Your task to perform on an android device: What's on my calendar tomorrow? Image 0: 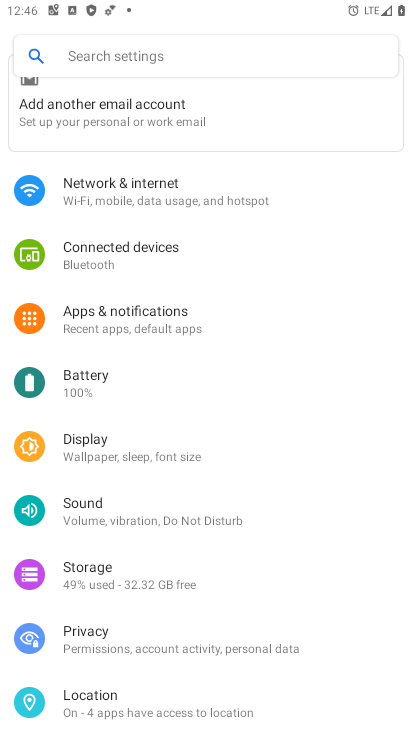
Step 0: press home button
Your task to perform on an android device: What's on my calendar tomorrow? Image 1: 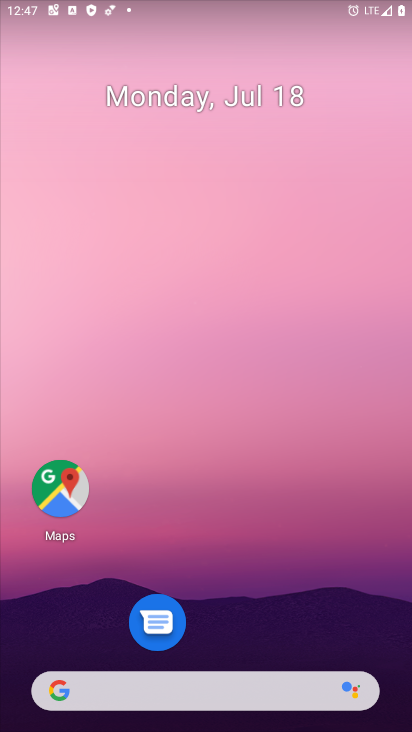
Step 1: drag from (197, 482) to (244, 5)
Your task to perform on an android device: What's on my calendar tomorrow? Image 2: 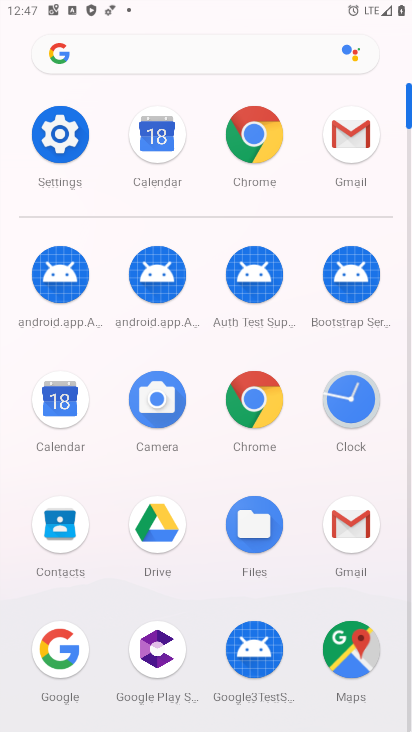
Step 2: click (50, 516)
Your task to perform on an android device: What's on my calendar tomorrow? Image 3: 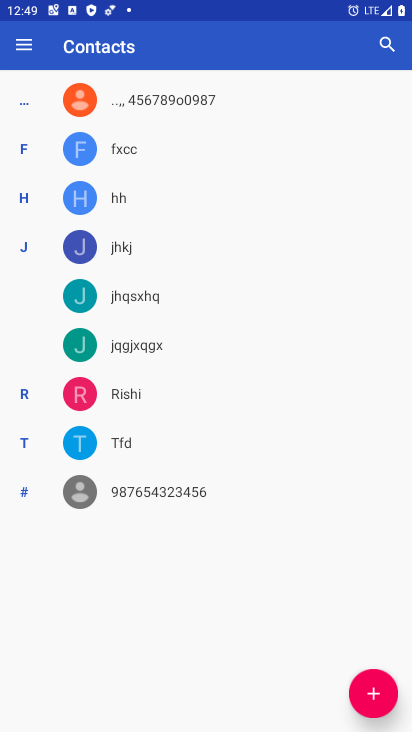
Step 3: press home button
Your task to perform on an android device: What's on my calendar tomorrow? Image 4: 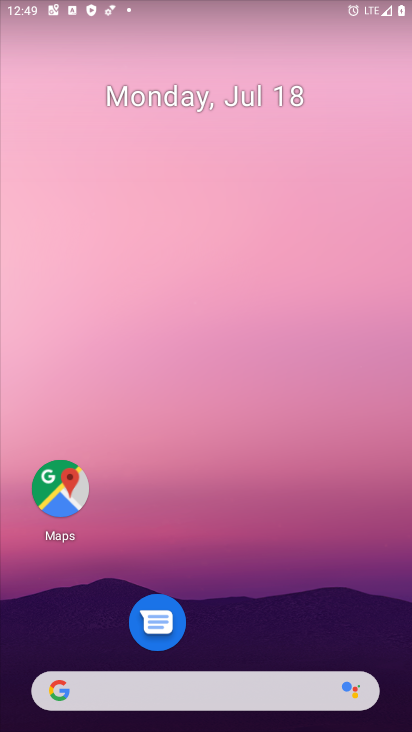
Step 4: drag from (223, 449) to (223, 196)
Your task to perform on an android device: What's on my calendar tomorrow? Image 5: 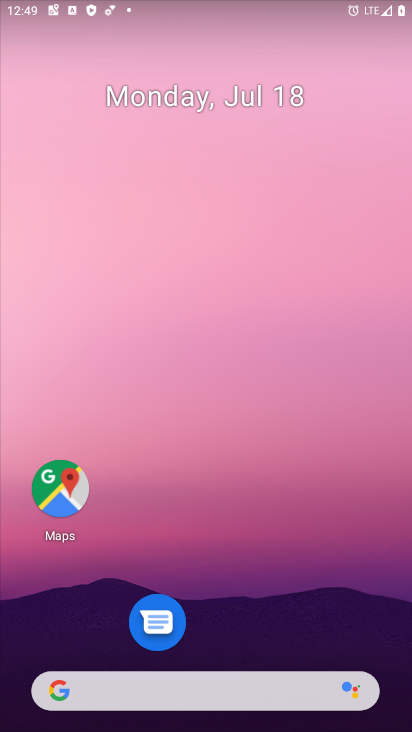
Step 5: drag from (136, 722) to (105, 132)
Your task to perform on an android device: What's on my calendar tomorrow? Image 6: 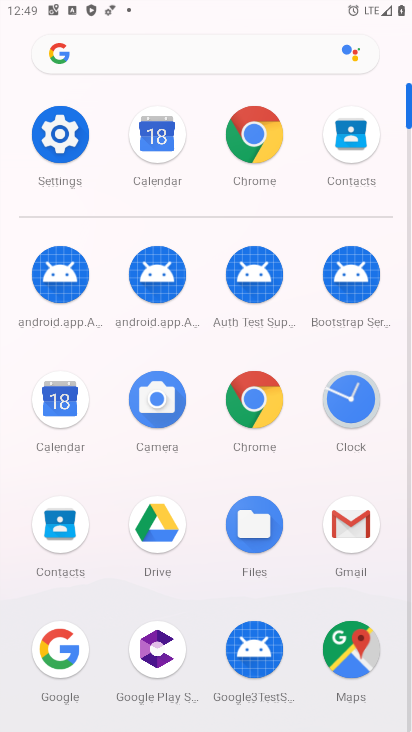
Step 6: click (67, 400)
Your task to perform on an android device: What's on my calendar tomorrow? Image 7: 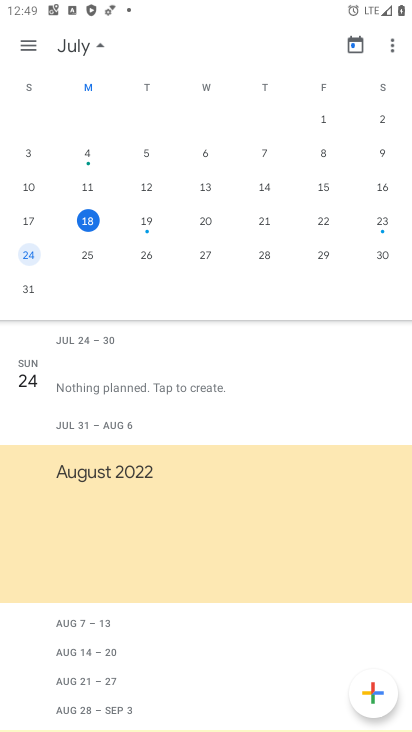
Step 7: click (141, 226)
Your task to perform on an android device: What's on my calendar tomorrow? Image 8: 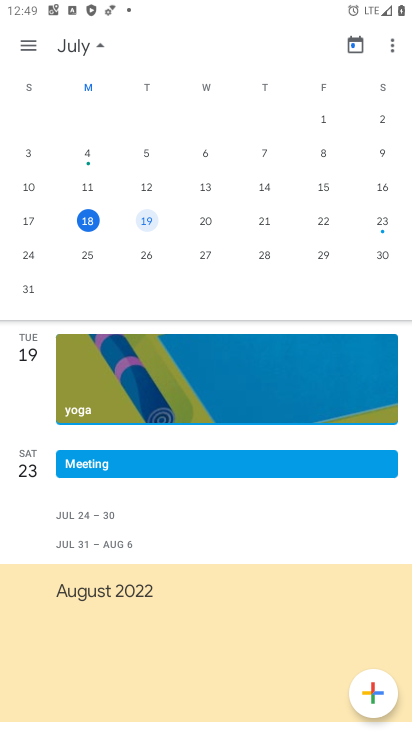
Step 8: click (154, 224)
Your task to perform on an android device: What's on my calendar tomorrow? Image 9: 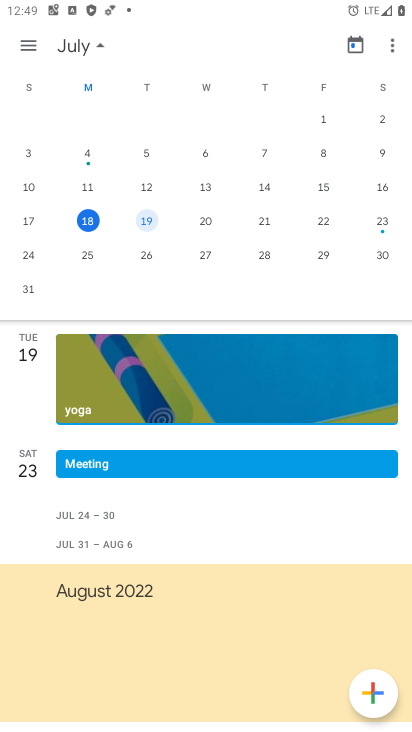
Step 9: task complete